Your task to perform on an android device: all mails in gmail Image 0: 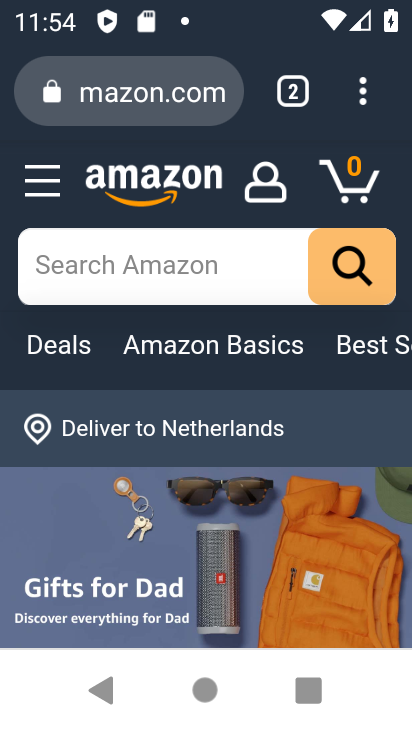
Step 0: press home button
Your task to perform on an android device: all mails in gmail Image 1: 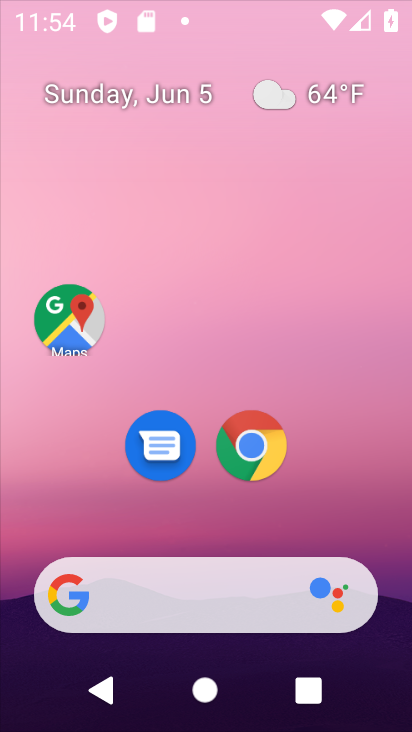
Step 1: drag from (246, 394) to (268, 5)
Your task to perform on an android device: all mails in gmail Image 2: 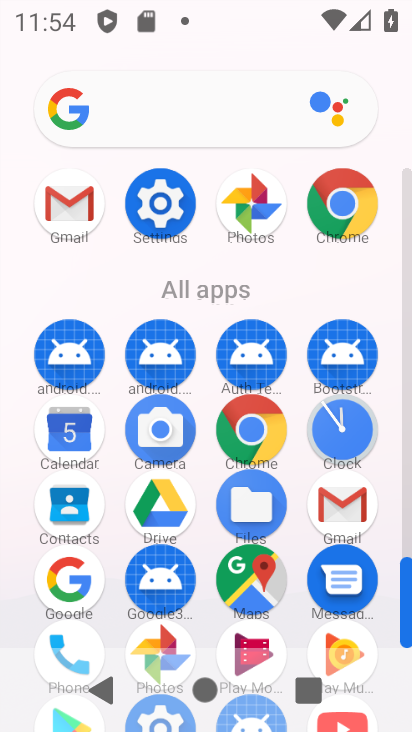
Step 2: click (369, 525)
Your task to perform on an android device: all mails in gmail Image 3: 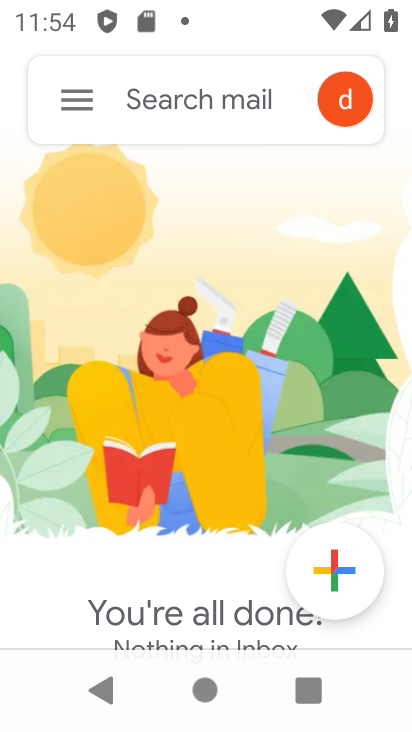
Step 3: click (73, 98)
Your task to perform on an android device: all mails in gmail Image 4: 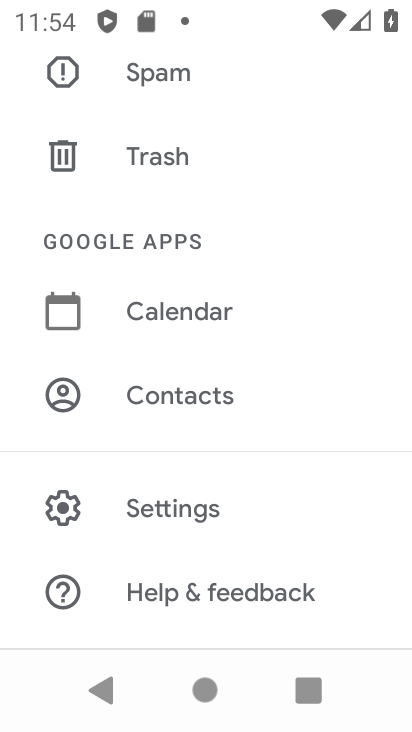
Step 4: drag from (257, 231) to (281, 616)
Your task to perform on an android device: all mails in gmail Image 5: 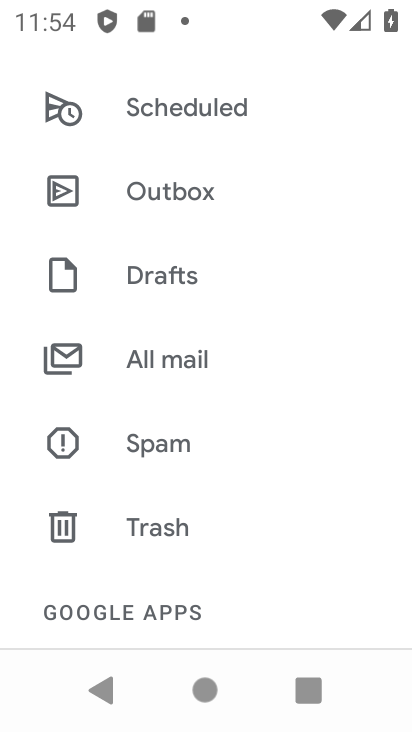
Step 5: click (198, 359)
Your task to perform on an android device: all mails in gmail Image 6: 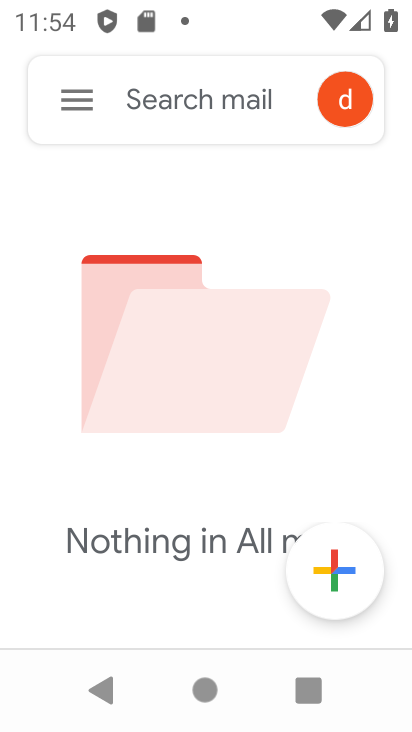
Step 6: task complete